Your task to perform on an android device: stop showing notifications on the lock screen Image 0: 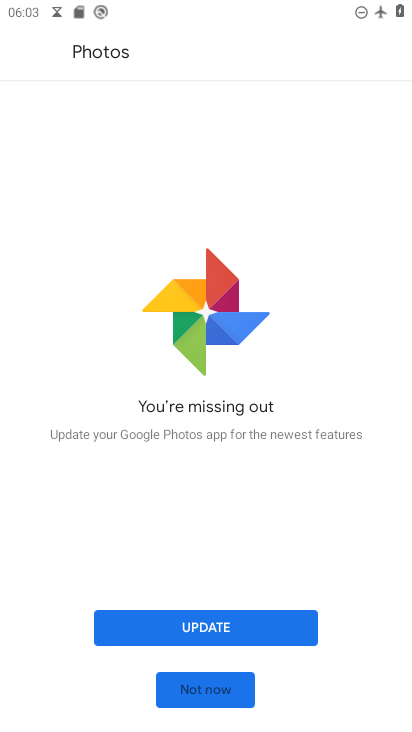
Step 0: press home button
Your task to perform on an android device: stop showing notifications on the lock screen Image 1: 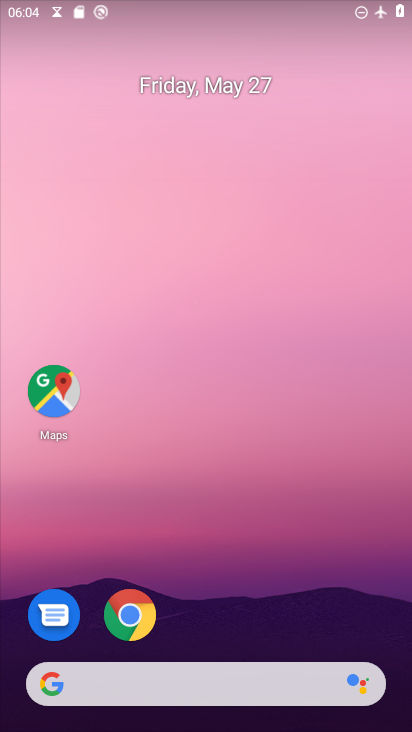
Step 1: click (217, 0)
Your task to perform on an android device: stop showing notifications on the lock screen Image 2: 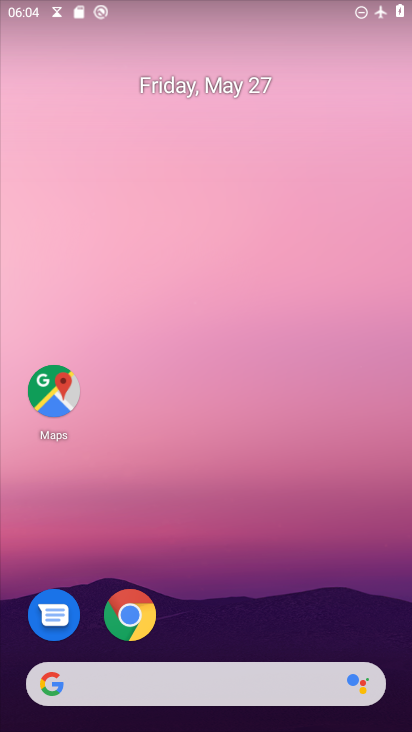
Step 2: drag from (243, 573) to (188, 10)
Your task to perform on an android device: stop showing notifications on the lock screen Image 3: 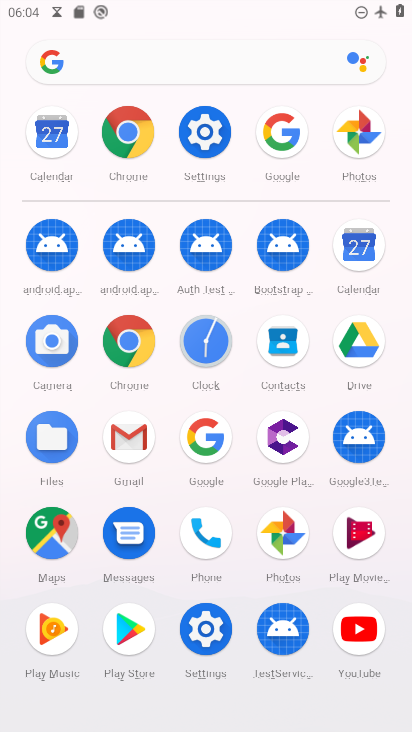
Step 3: click (200, 137)
Your task to perform on an android device: stop showing notifications on the lock screen Image 4: 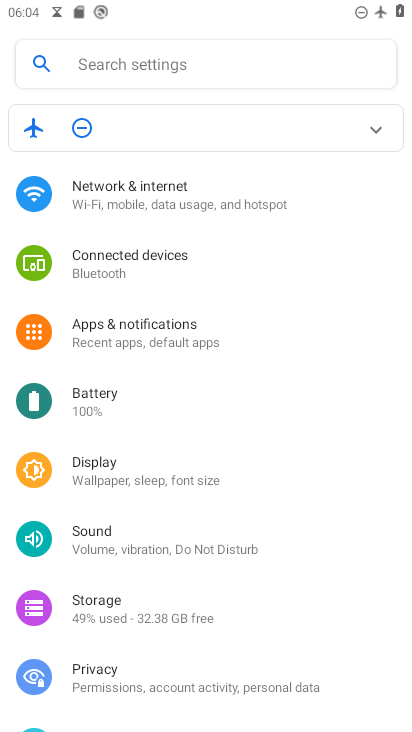
Step 4: click (206, 349)
Your task to perform on an android device: stop showing notifications on the lock screen Image 5: 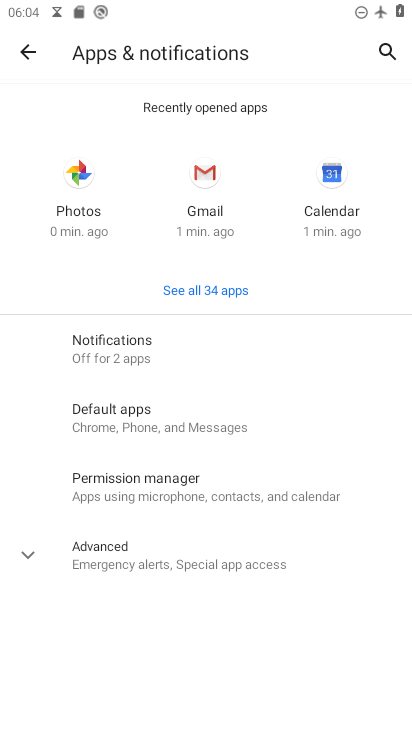
Step 5: click (183, 351)
Your task to perform on an android device: stop showing notifications on the lock screen Image 6: 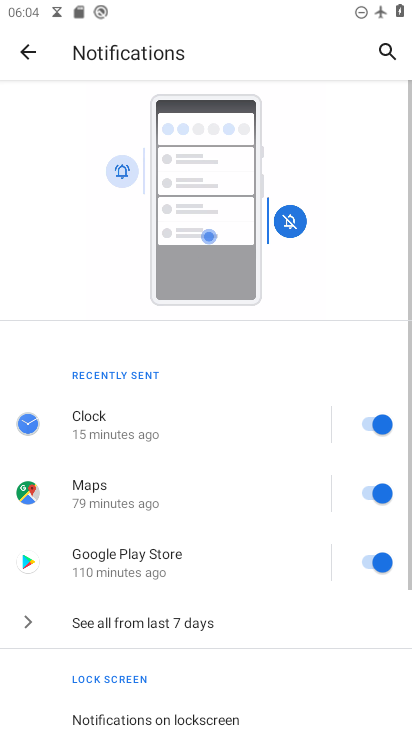
Step 6: click (177, 719)
Your task to perform on an android device: stop showing notifications on the lock screen Image 7: 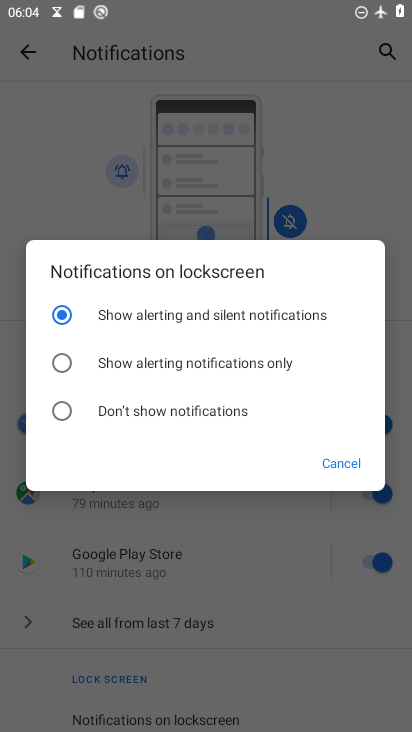
Step 7: click (134, 413)
Your task to perform on an android device: stop showing notifications on the lock screen Image 8: 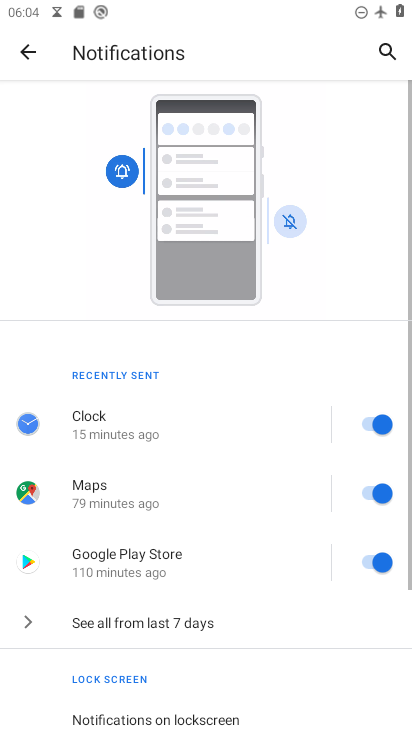
Step 8: task complete